Your task to perform on an android device: Go to notification settings Image 0: 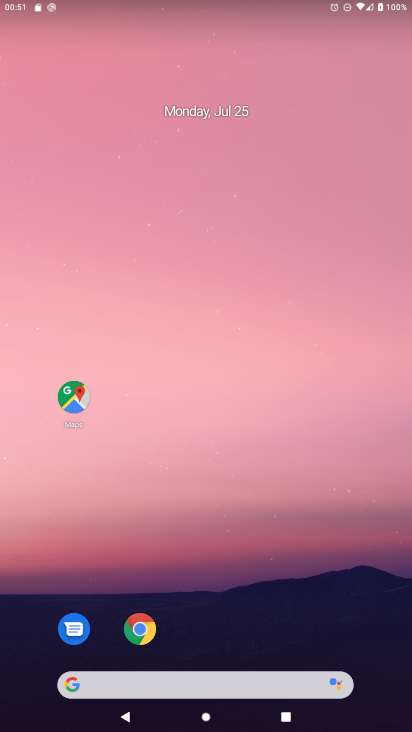
Step 0: drag from (186, 650) to (250, 205)
Your task to perform on an android device: Go to notification settings Image 1: 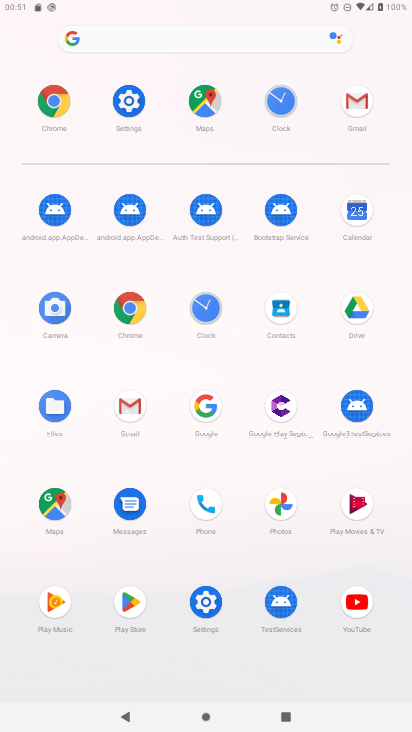
Step 1: click (204, 603)
Your task to perform on an android device: Go to notification settings Image 2: 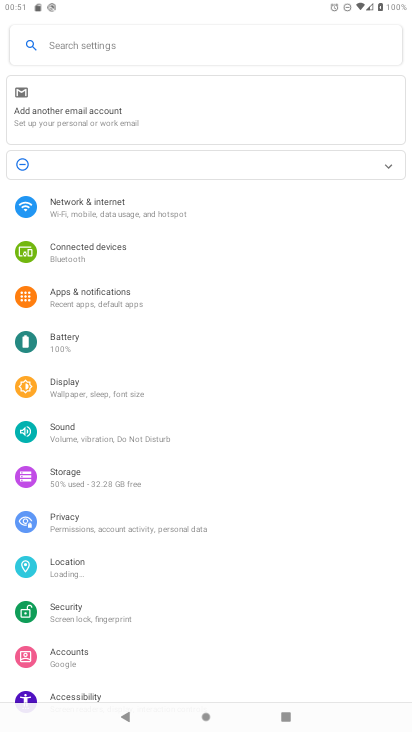
Step 2: click (121, 300)
Your task to perform on an android device: Go to notification settings Image 3: 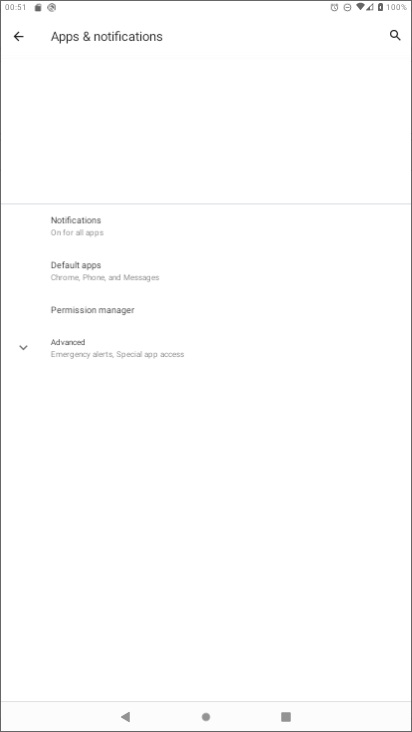
Step 3: drag from (200, 568) to (263, 232)
Your task to perform on an android device: Go to notification settings Image 4: 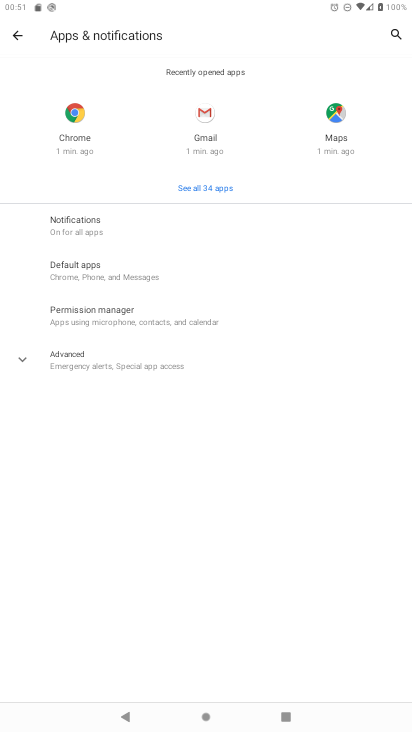
Step 4: click (137, 224)
Your task to perform on an android device: Go to notification settings Image 5: 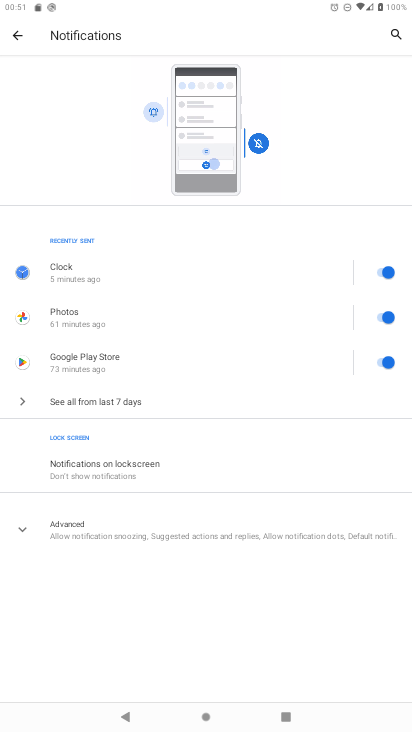
Step 5: click (79, 525)
Your task to perform on an android device: Go to notification settings Image 6: 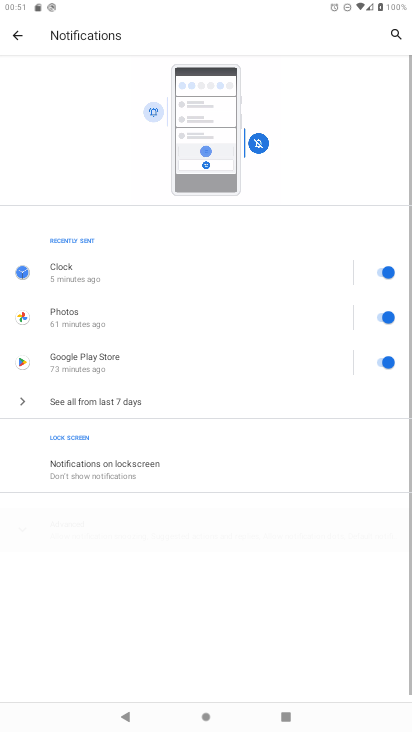
Step 6: click (79, 525)
Your task to perform on an android device: Go to notification settings Image 7: 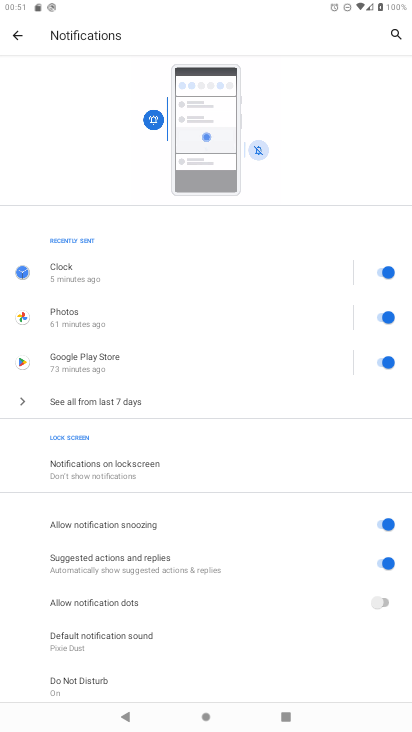
Step 7: task complete